Your task to perform on an android device: open app "Facebook Lite" (install if not already installed) and go to login screen Image 0: 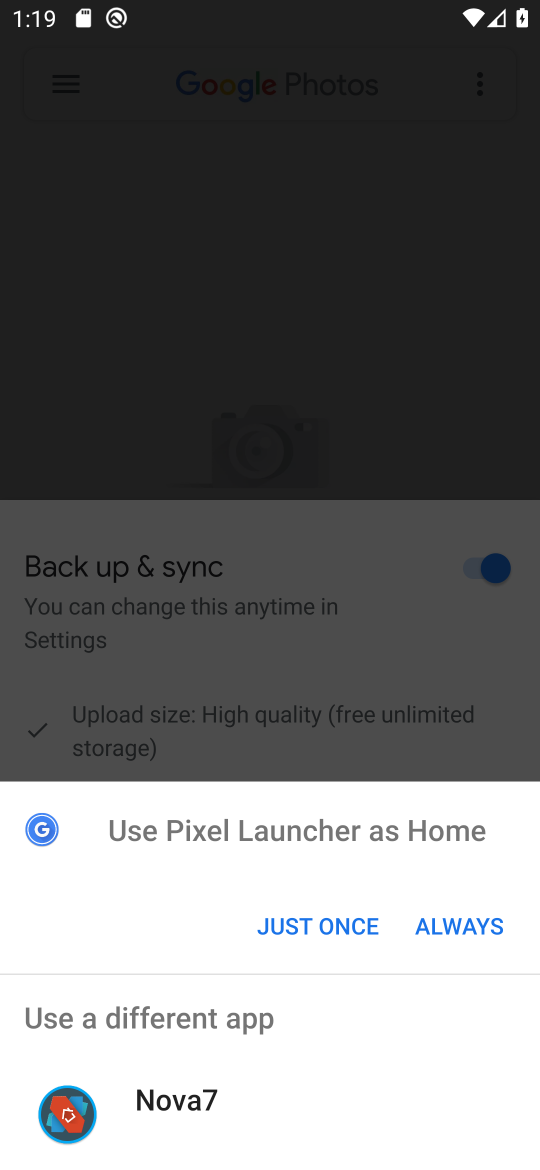
Step 0: click (305, 923)
Your task to perform on an android device: open app "Facebook Lite" (install if not already installed) and go to login screen Image 1: 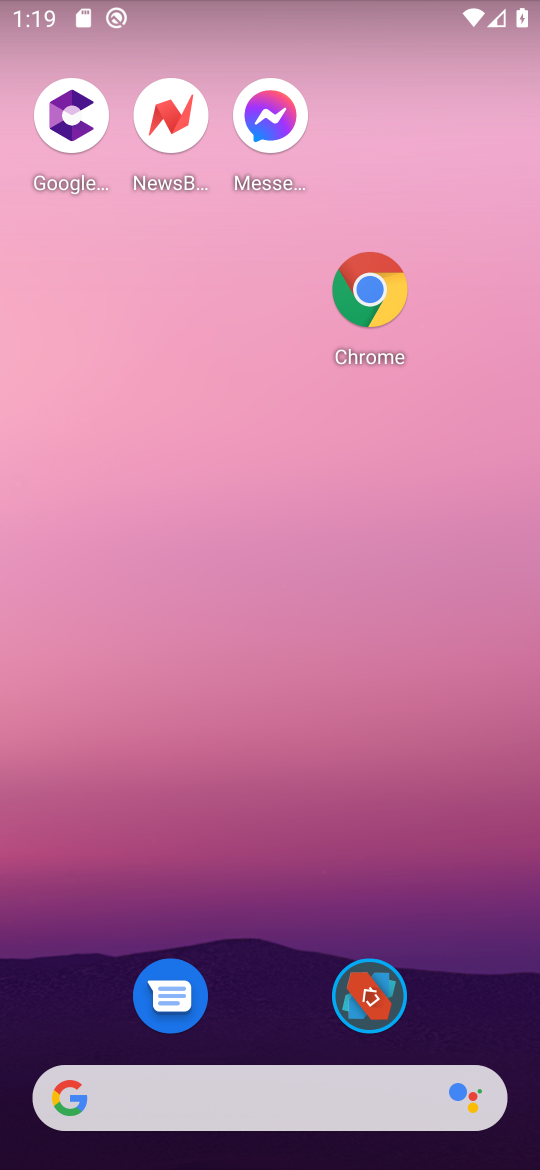
Step 1: drag from (298, 851) to (430, 171)
Your task to perform on an android device: open app "Facebook Lite" (install if not already installed) and go to login screen Image 2: 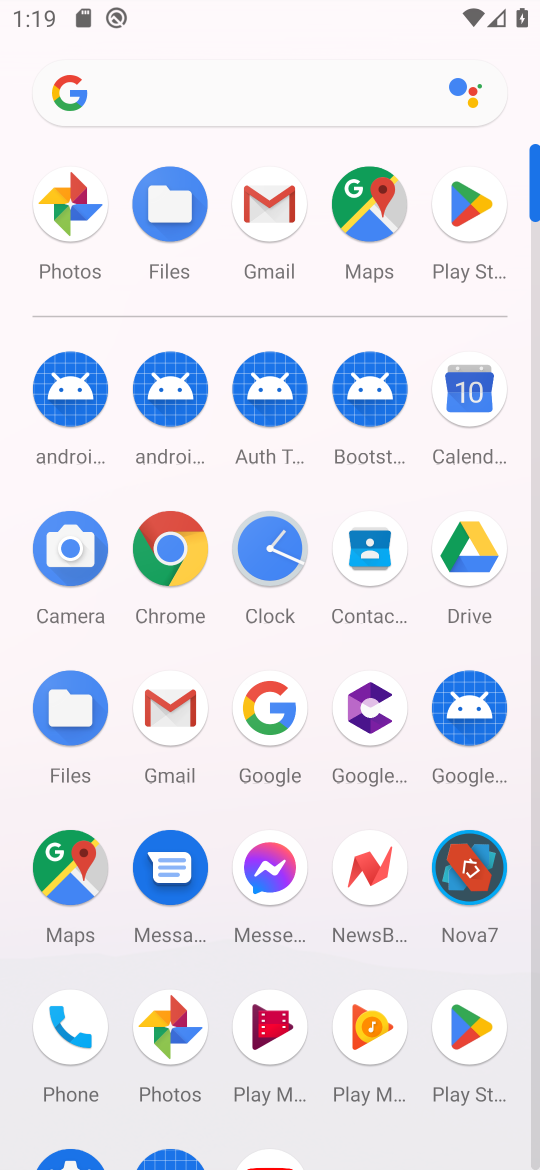
Step 2: click (477, 203)
Your task to perform on an android device: open app "Facebook Lite" (install if not already installed) and go to login screen Image 3: 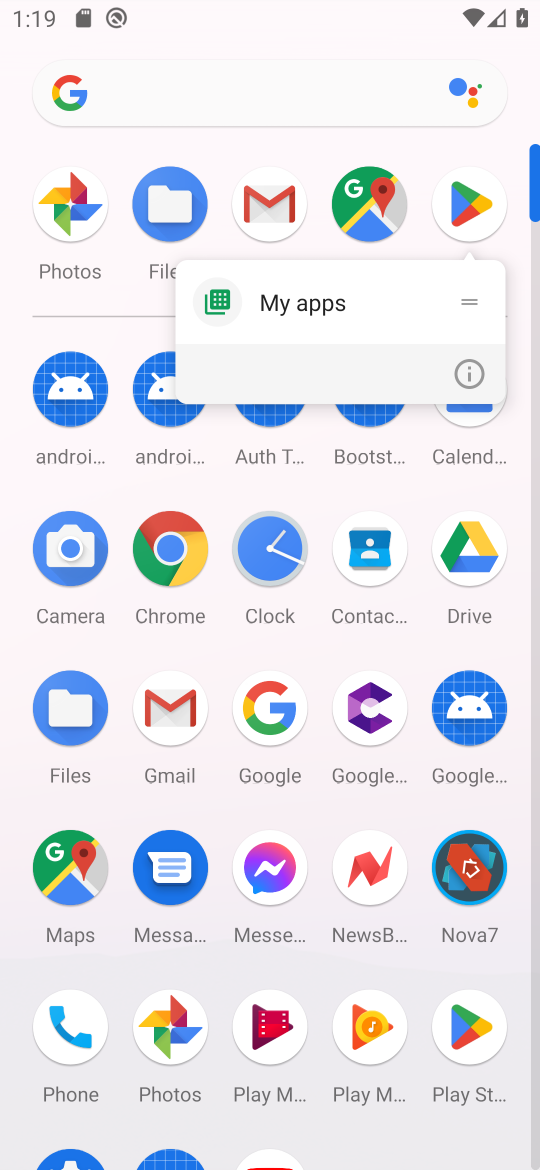
Step 3: click (480, 199)
Your task to perform on an android device: open app "Facebook Lite" (install if not already installed) and go to login screen Image 4: 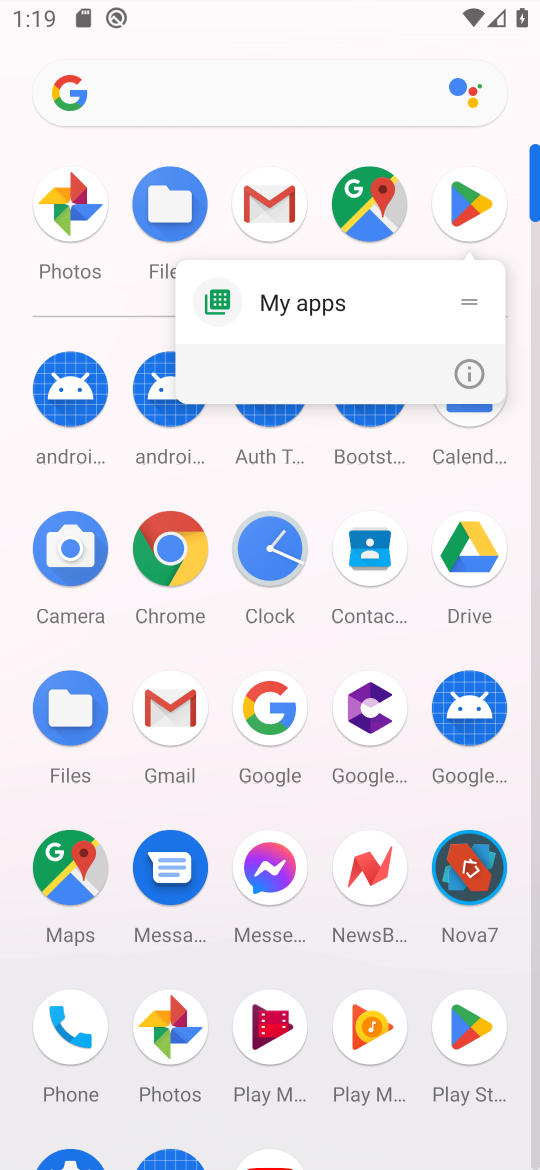
Step 4: click (480, 196)
Your task to perform on an android device: open app "Facebook Lite" (install if not already installed) and go to login screen Image 5: 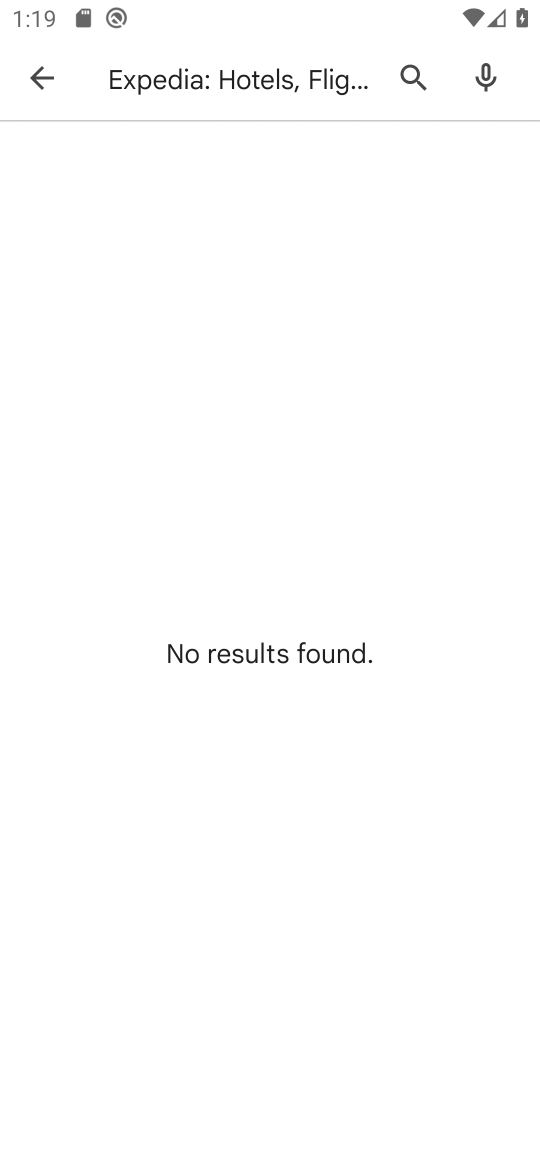
Step 5: press back button
Your task to perform on an android device: open app "Facebook Lite" (install if not already installed) and go to login screen Image 6: 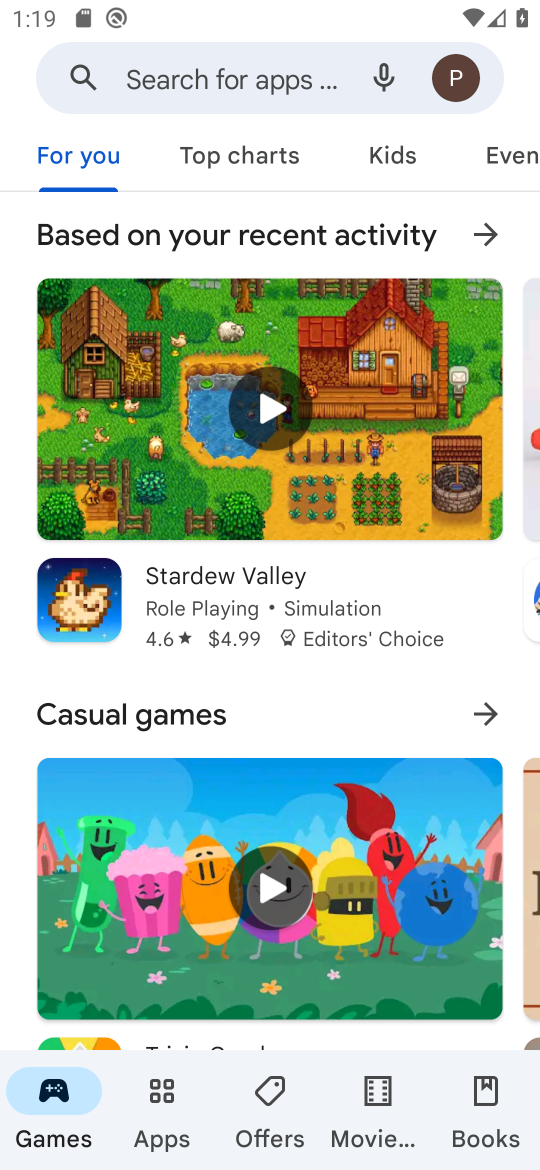
Step 6: click (262, 82)
Your task to perform on an android device: open app "Facebook Lite" (install if not already installed) and go to login screen Image 7: 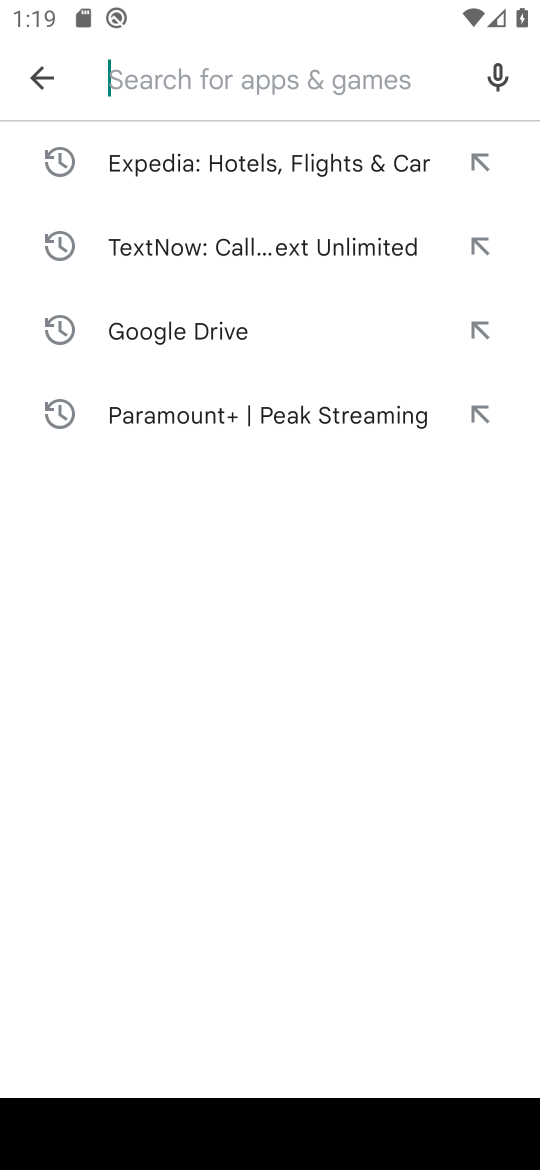
Step 7: task complete